Your task to perform on an android device: Search for pizza restaurants on Maps Image 0: 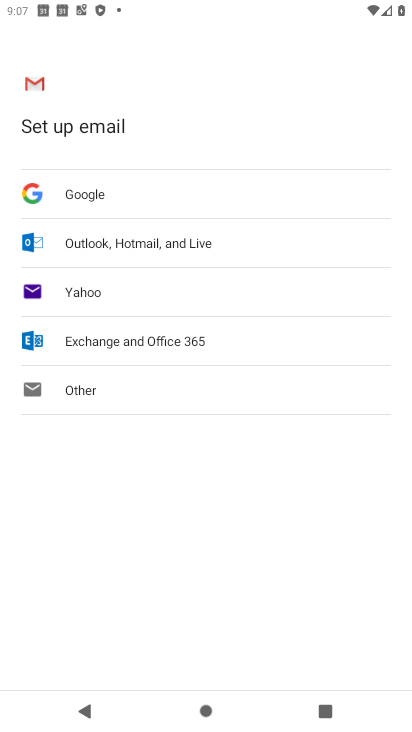
Step 0: press home button
Your task to perform on an android device: Search for pizza restaurants on Maps Image 1: 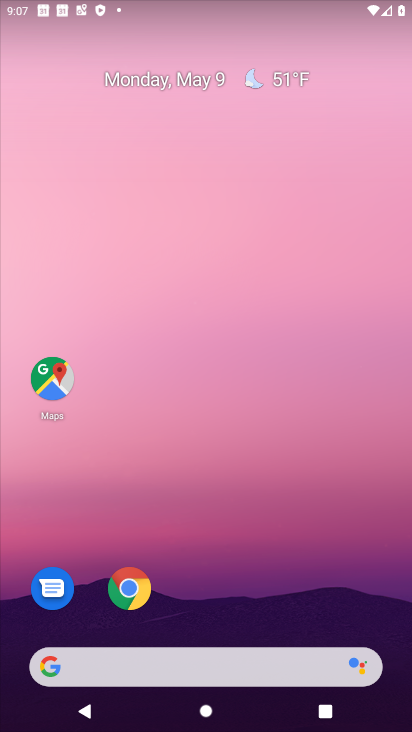
Step 1: click (57, 371)
Your task to perform on an android device: Search for pizza restaurants on Maps Image 2: 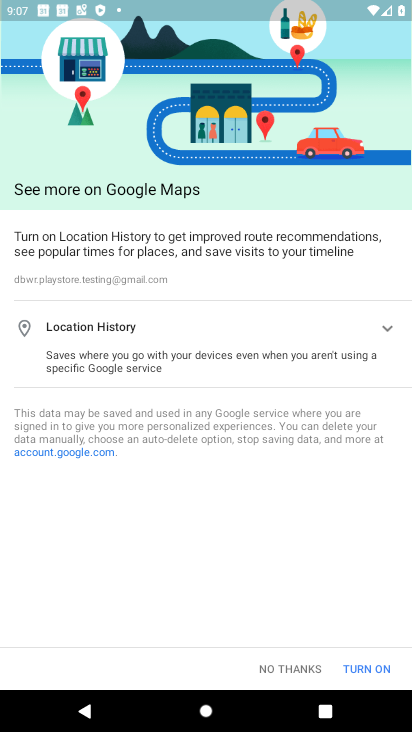
Step 2: click (288, 664)
Your task to perform on an android device: Search for pizza restaurants on Maps Image 3: 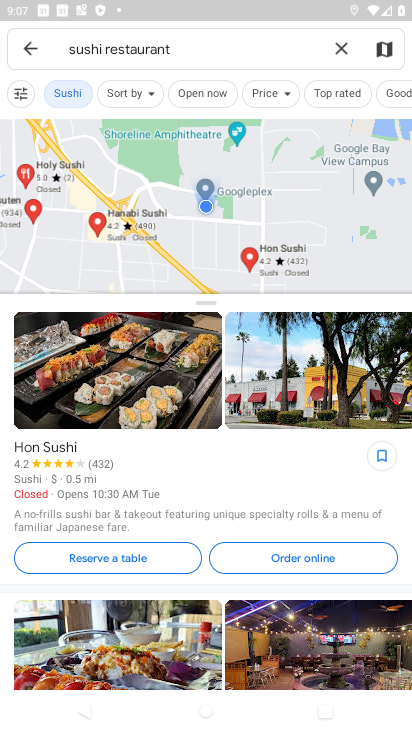
Step 3: click (341, 42)
Your task to perform on an android device: Search for pizza restaurants on Maps Image 4: 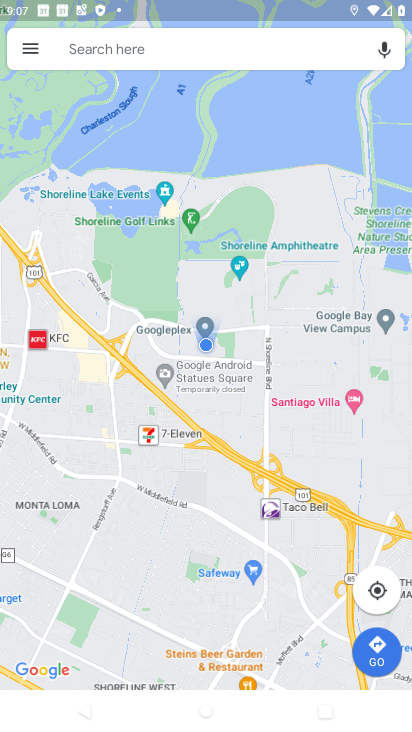
Step 4: click (246, 55)
Your task to perform on an android device: Search for pizza restaurants on Maps Image 5: 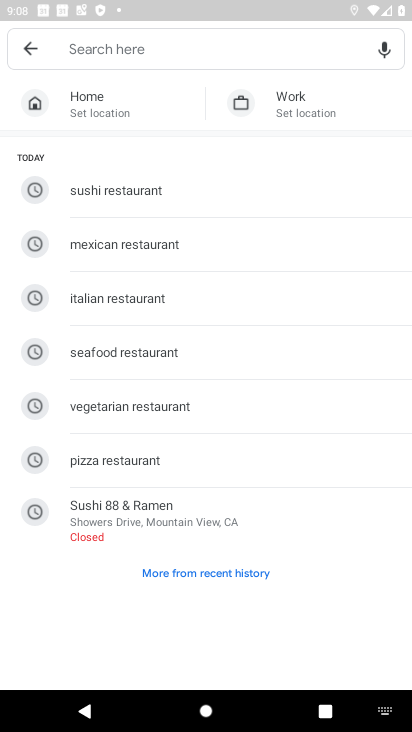
Step 5: click (146, 454)
Your task to perform on an android device: Search for pizza restaurants on Maps Image 6: 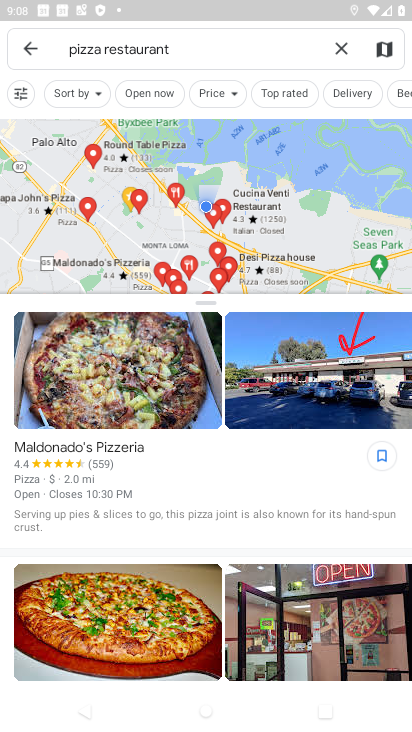
Step 6: task complete